Your task to perform on an android device: find snoozed emails in the gmail app Image 0: 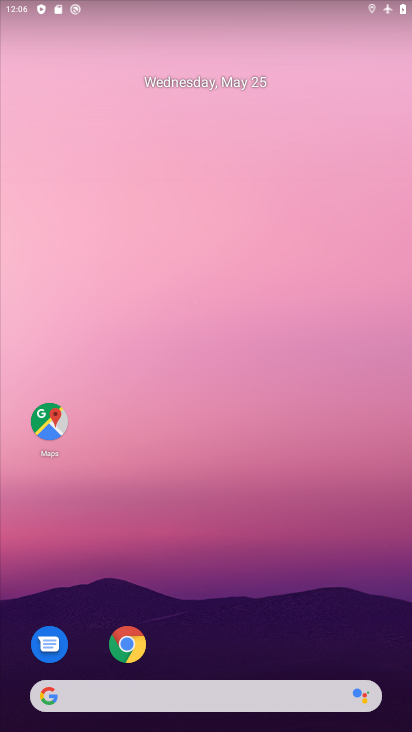
Step 0: drag from (267, 578) to (175, 77)
Your task to perform on an android device: find snoozed emails in the gmail app Image 1: 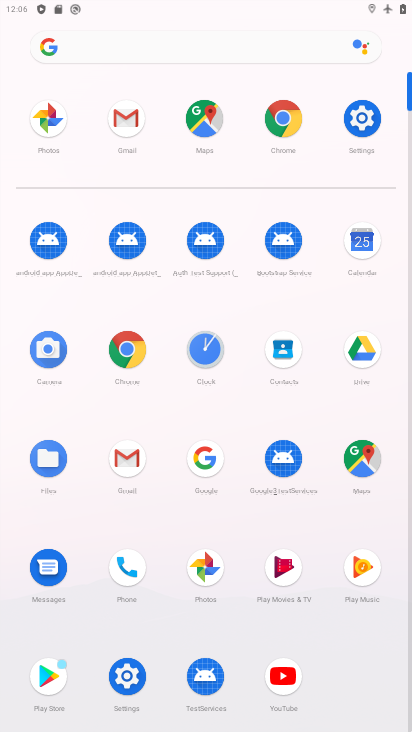
Step 1: click (122, 117)
Your task to perform on an android device: find snoozed emails in the gmail app Image 2: 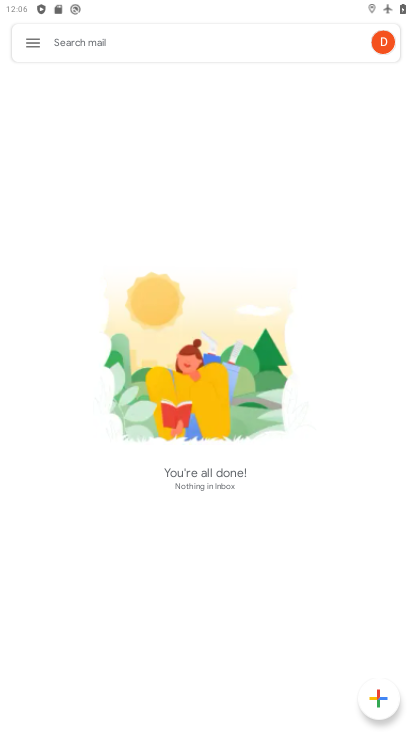
Step 2: click (29, 41)
Your task to perform on an android device: find snoozed emails in the gmail app Image 3: 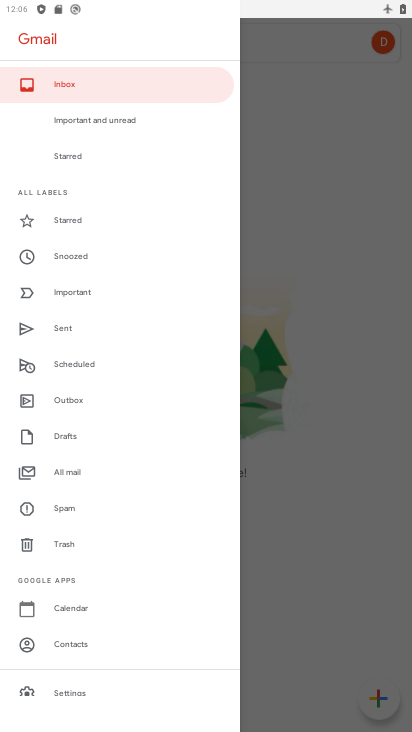
Step 3: drag from (159, 442) to (96, 310)
Your task to perform on an android device: find snoozed emails in the gmail app Image 4: 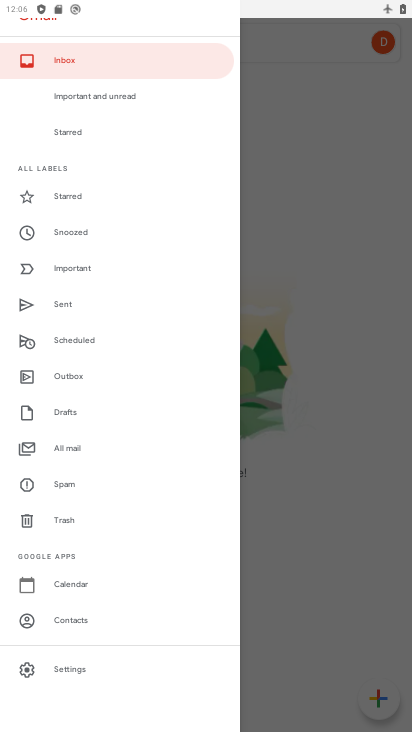
Step 4: click (68, 198)
Your task to perform on an android device: find snoozed emails in the gmail app Image 5: 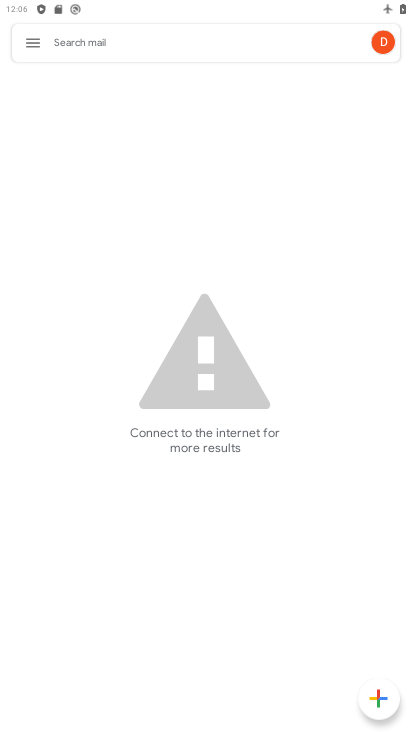
Step 5: task complete